Your task to perform on an android device: Go to Yahoo.com Image 0: 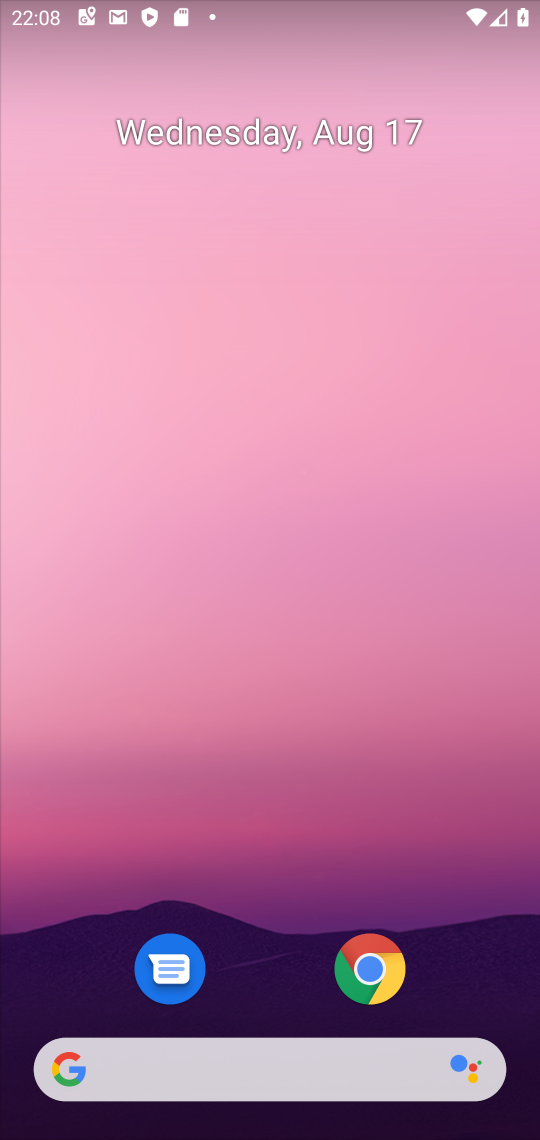
Step 0: click (369, 963)
Your task to perform on an android device: Go to Yahoo.com Image 1: 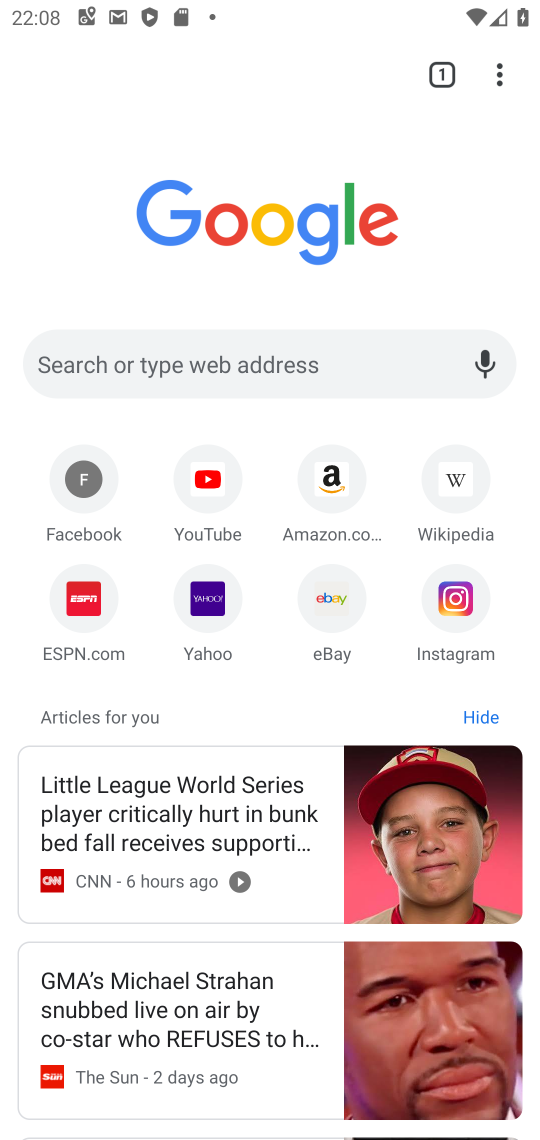
Step 1: click (197, 593)
Your task to perform on an android device: Go to Yahoo.com Image 2: 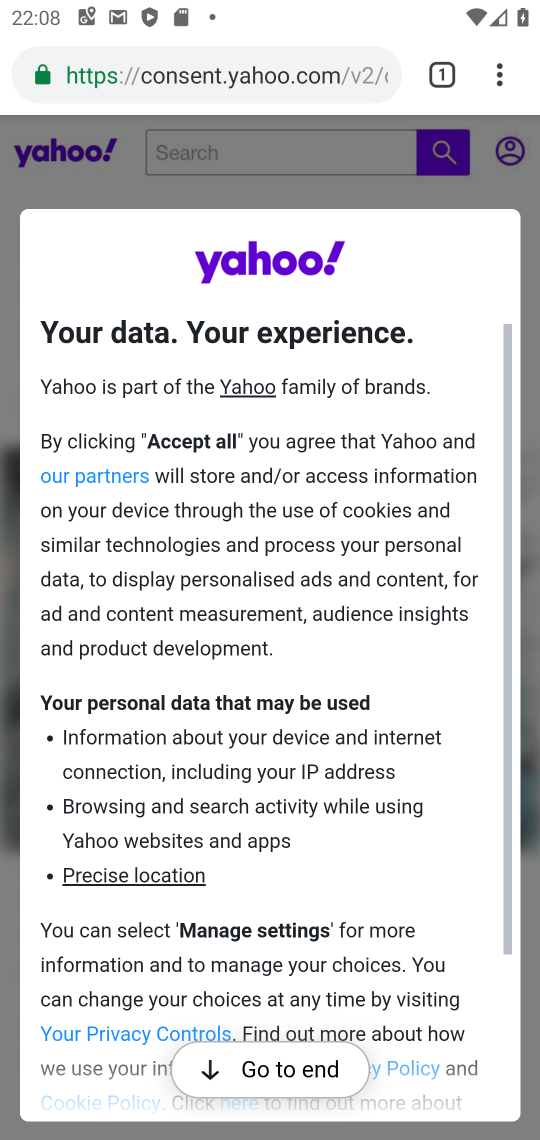
Step 2: click (291, 1076)
Your task to perform on an android device: Go to Yahoo.com Image 3: 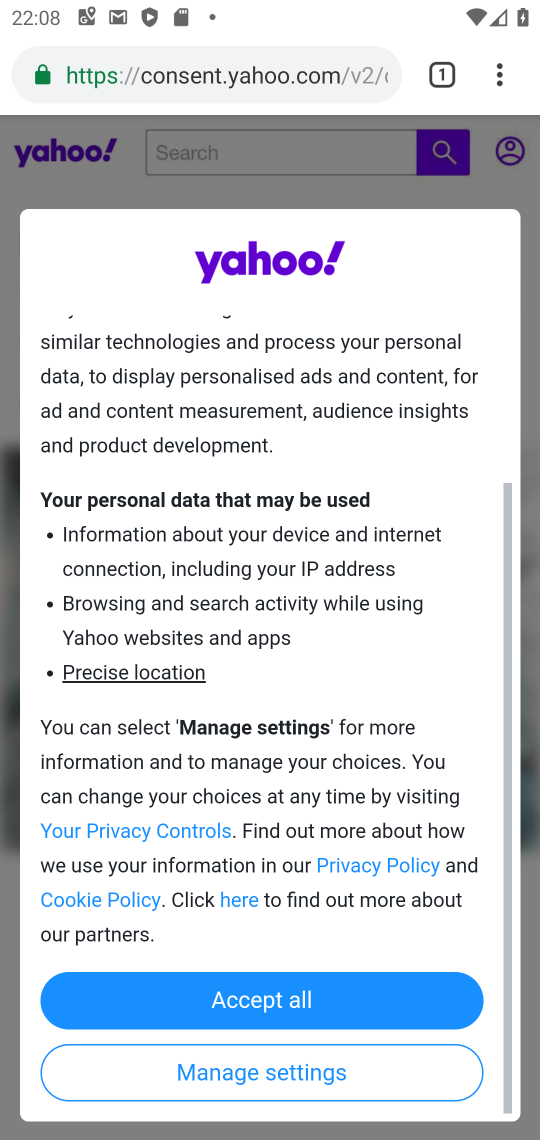
Step 3: click (262, 998)
Your task to perform on an android device: Go to Yahoo.com Image 4: 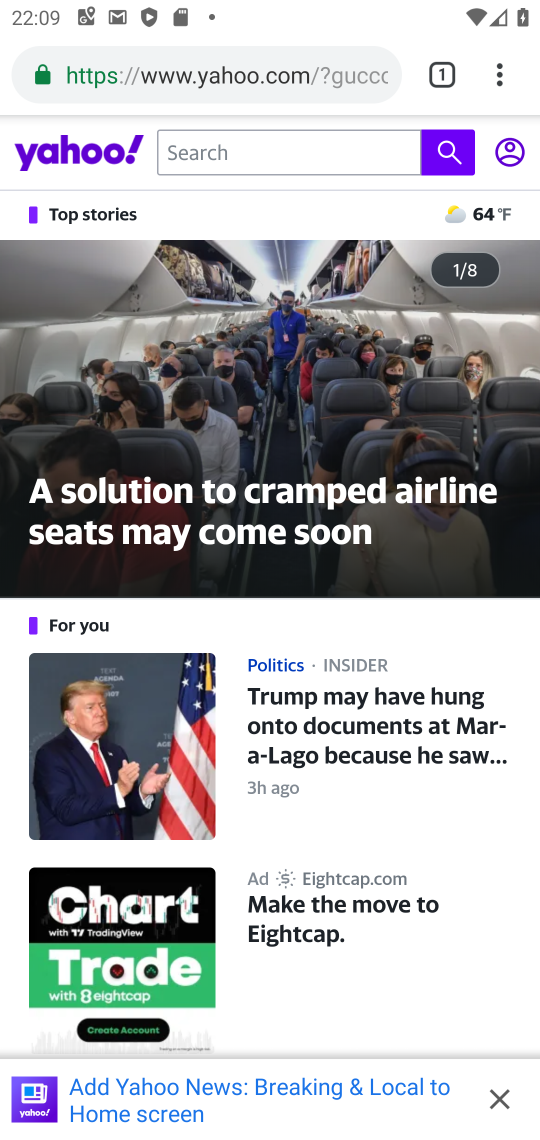
Step 4: task complete